Your task to perform on an android device: Show me popular games on the Play Store Image 0: 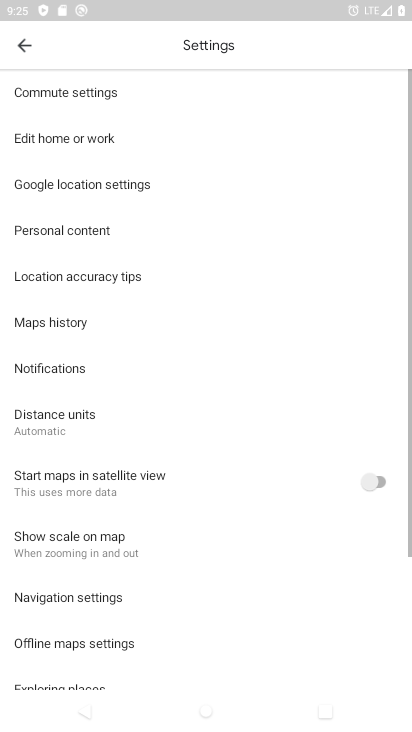
Step 0: press home button
Your task to perform on an android device: Show me popular games on the Play Store Image 1: 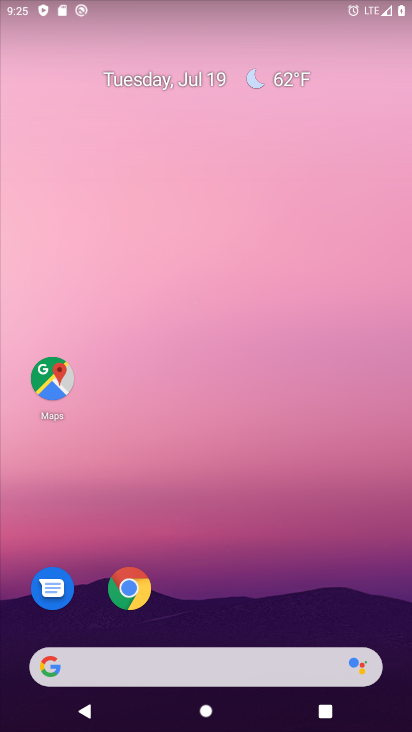
Step 1: drag from (217, 573) to (247, 30)
Your task to perform on an android device: Show me popular games on the Play Store Image 2: 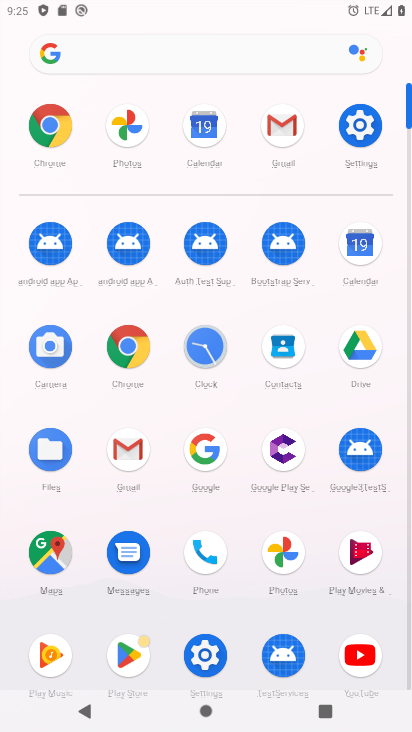
Step 2: click (124, 658)
Your task to perform on an android device: Show me popular games on the Play Store Image 3: 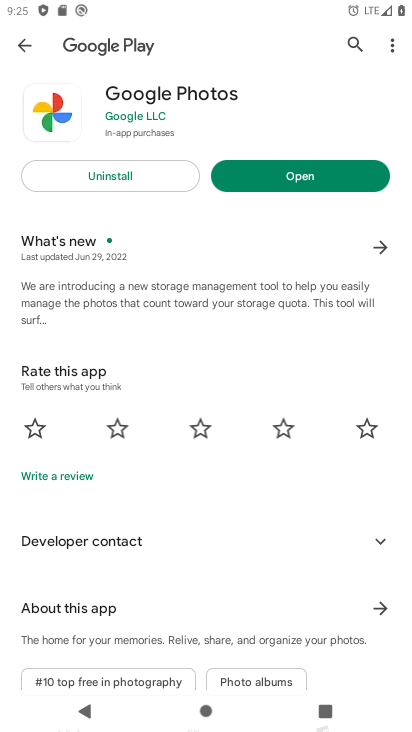
Step 3: click (33, 44)
Your task to perform on an android device: Show me popular games on the Play Store Image 4: 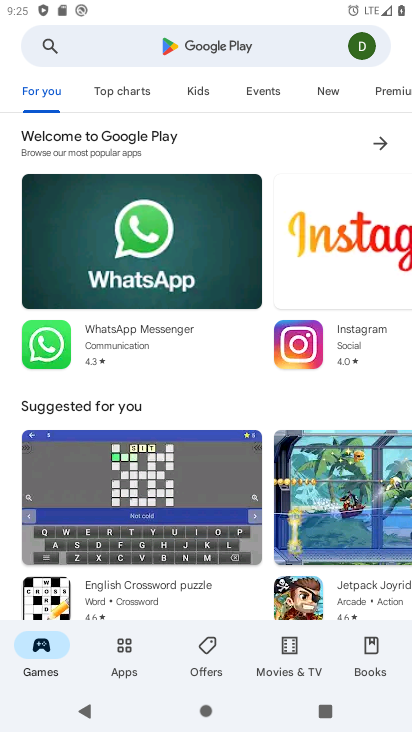
Step 4: click (194, 58)
Your task to perform on an android device: Show me popular games on the Play Store Image 5: 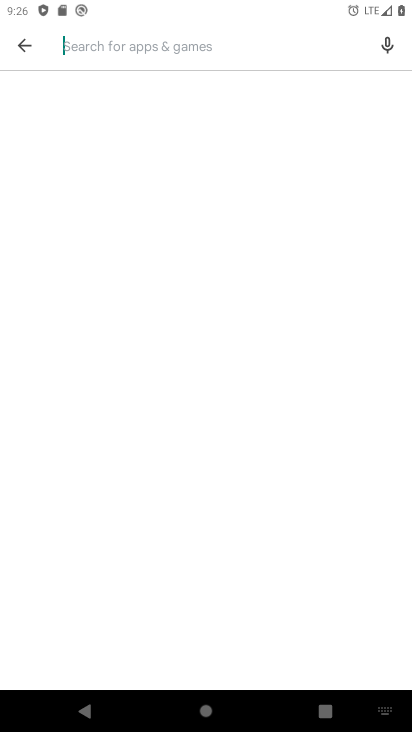
Step 5: type "popular games "
Your task to perform on an android device: Show me popular games on the Play Store Image 6: 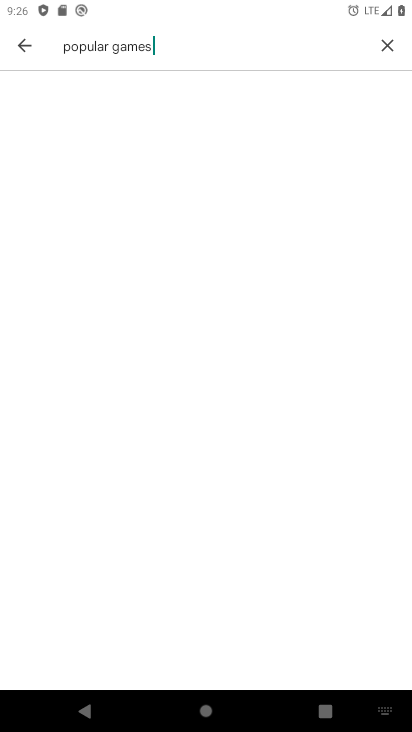
Step 6: press enter
Your task to perform on an android device: Show me popular games on the Play Store Image 7: 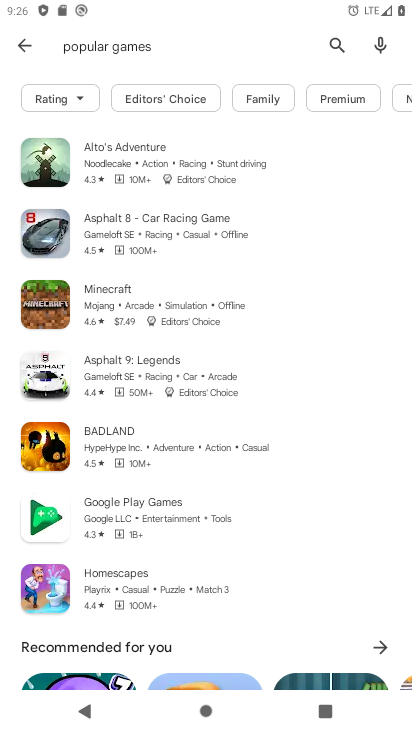
Step 7: task complete